Your task to perform on an android device: search for starred emails in the gmail app Image 0: 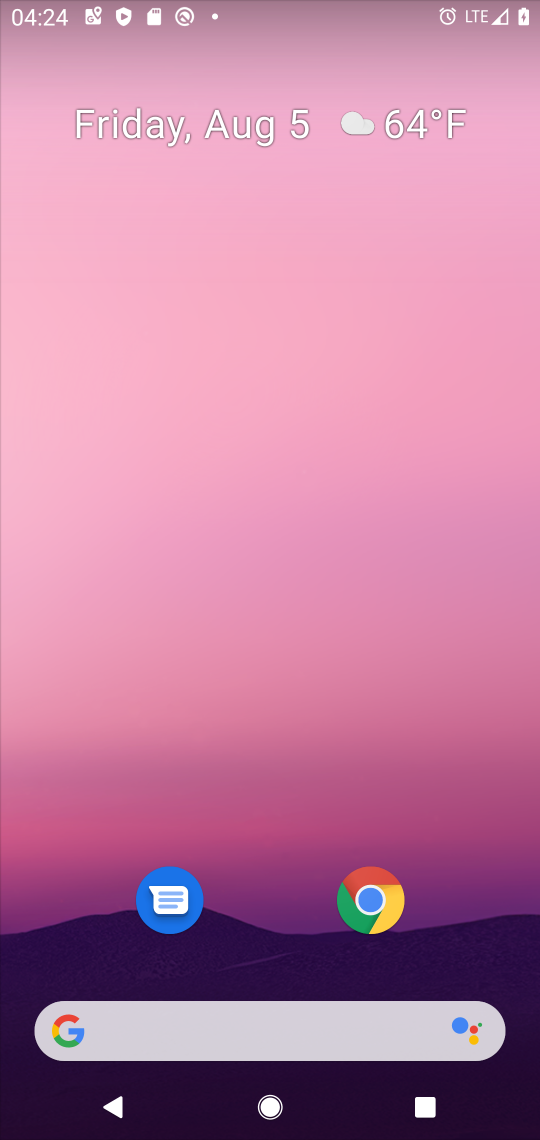
Step 0: drag from (270, 946) to (467, 40)
Your task to perform on an android device: search for starred emails in the gmail app Image 1: 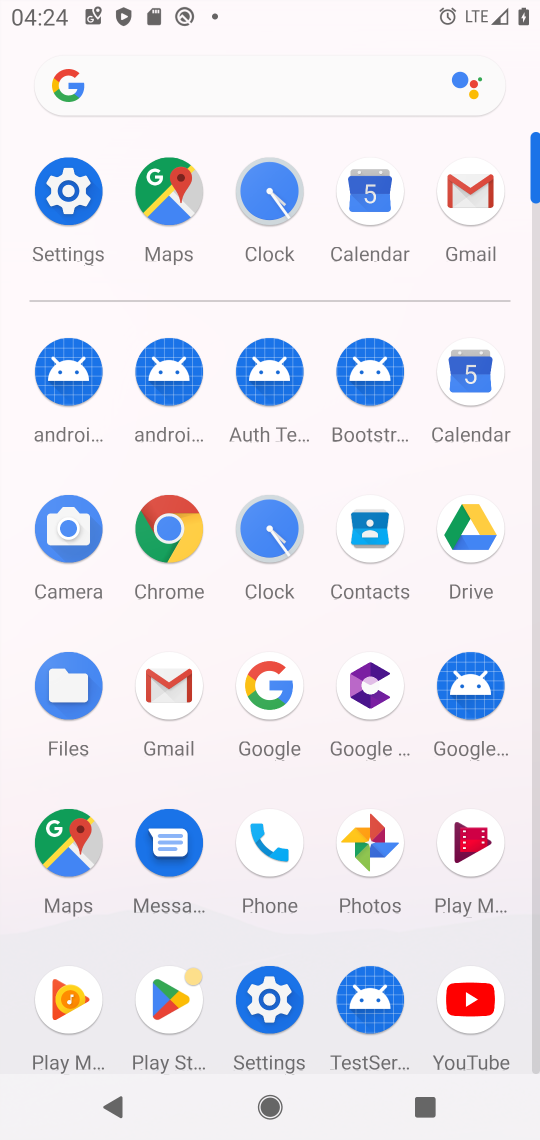
Step 1: click (449, 200)
Your task to perform on an android device: search for starred emails in the gmail app Image 2: 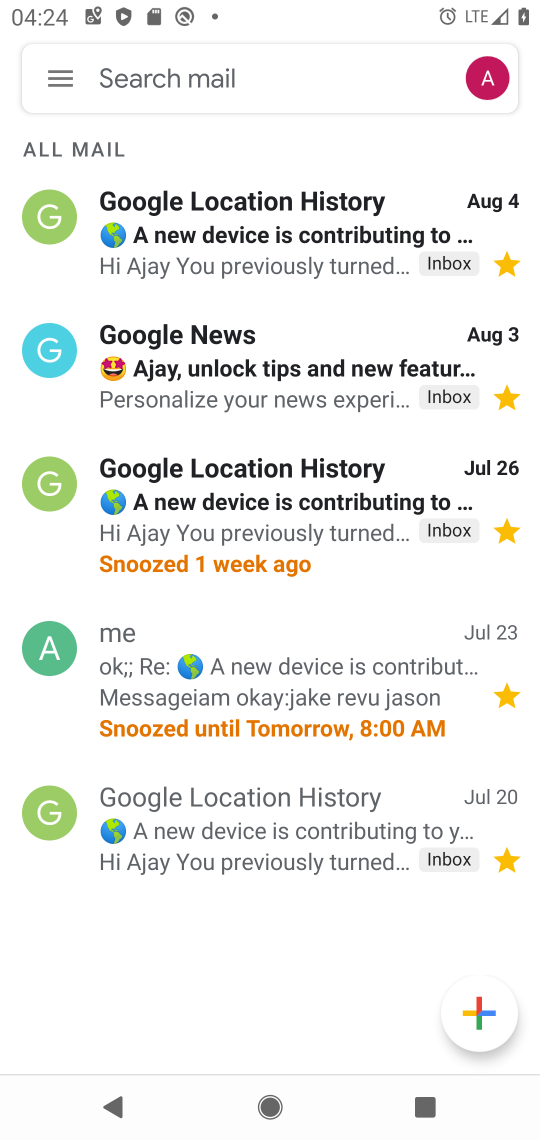
Step 2: click (42, 80)
Your task to perform on an android device: search for starred emails in the gmail app Image 3: 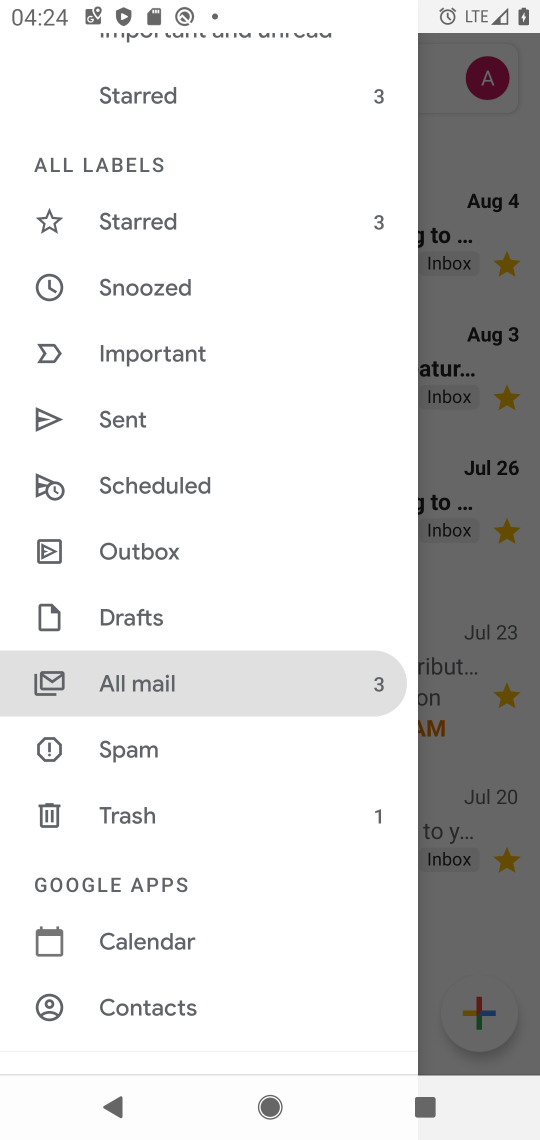
Step 3: click (162, 214)
Your task to perform on an android device: search for starred emails in the gmail app Image 4: 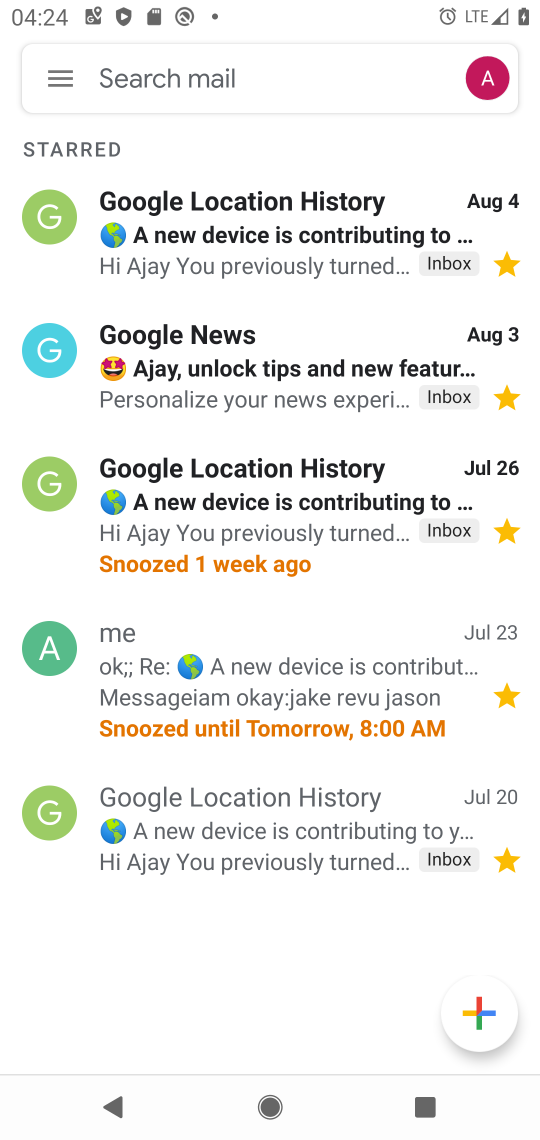
Step 4: task complete